Your task to perform on an android device: Search for the best rated book on Goodreads. Image 0: 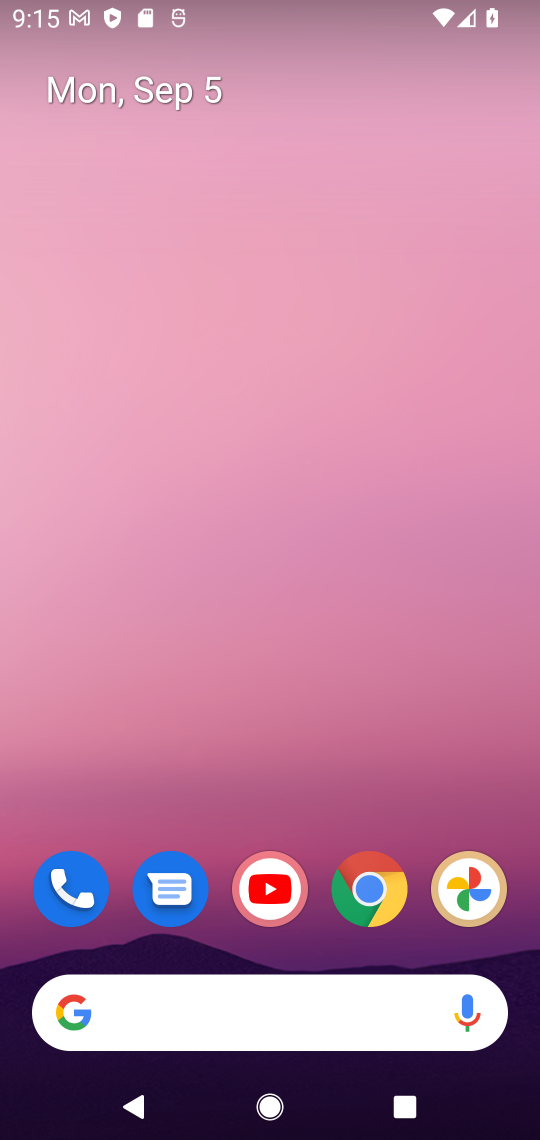
Step 0: click (256, 1024)
Your task to perform on an android device: Search for the best rated book on Goodreads. Image 1: 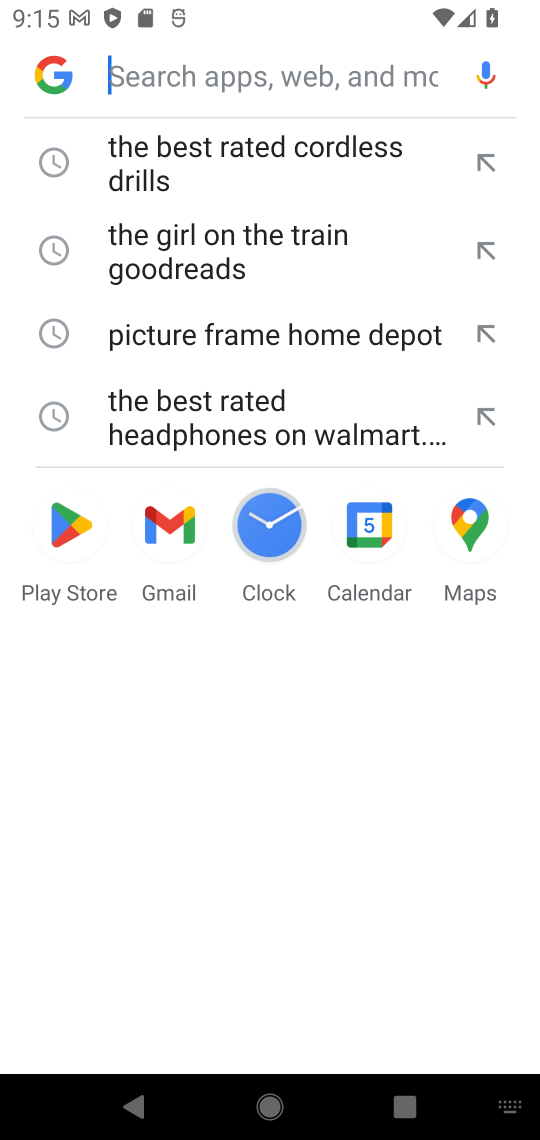
Step 1: type "the best rated book on Goodreads"
Your task to perform on an android device: Search for the best rated book on Goodreads. Image 2: 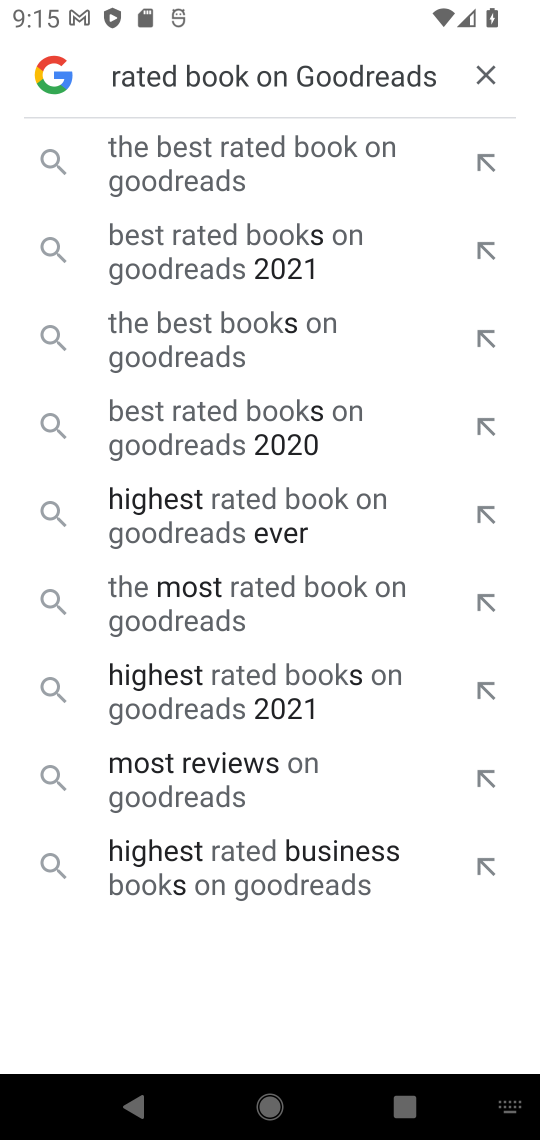
Step 2: click (199, 174)
Your task to perform on an android device: Search for the best rated book on Goodreads. Image 3: 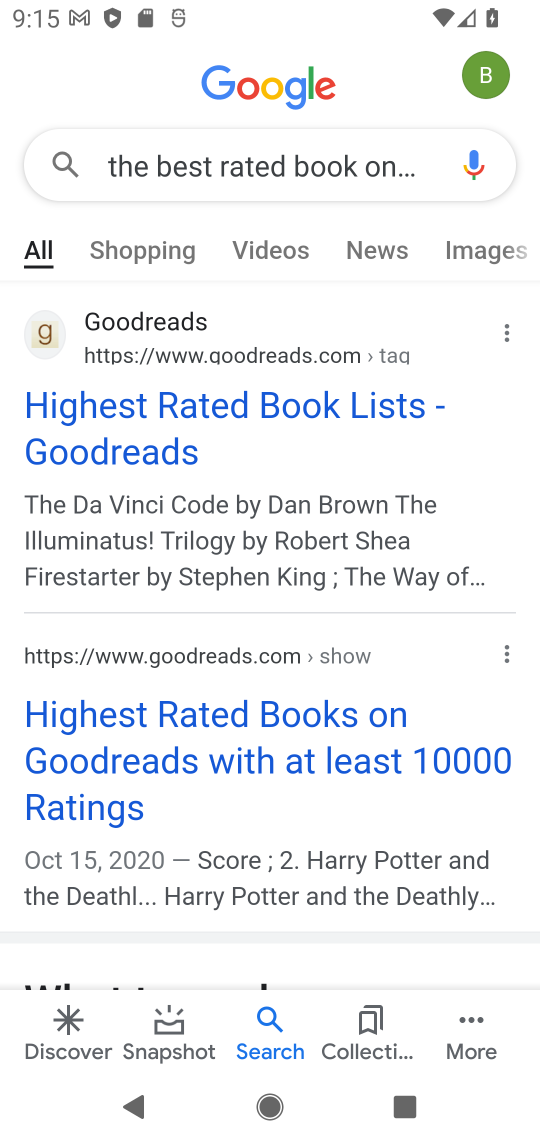
Step 3: task complete